Your task to perform on an android device: find which apps use the phone's location Image 0: 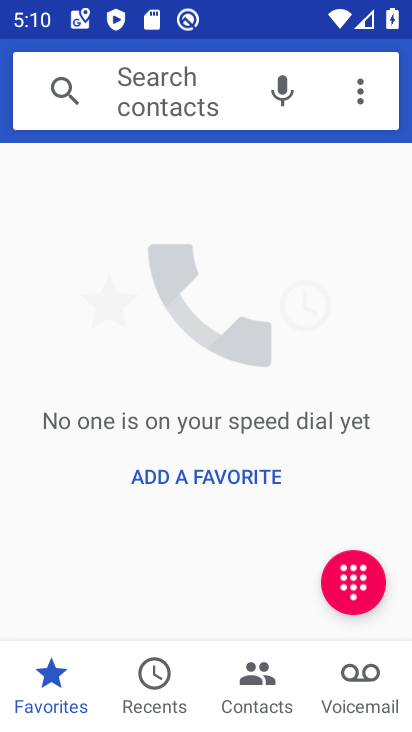
Step 0: press home button
Your task to perform on an android device: find which apps use the phone's location Image 1: 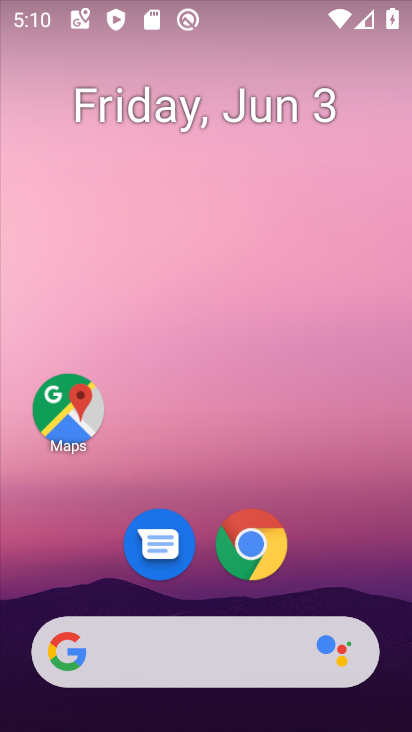
Step 1: drag from (352, 583) to (333, 88)
Your task to perform on an android device: find which apps use the phone's location Image 2: 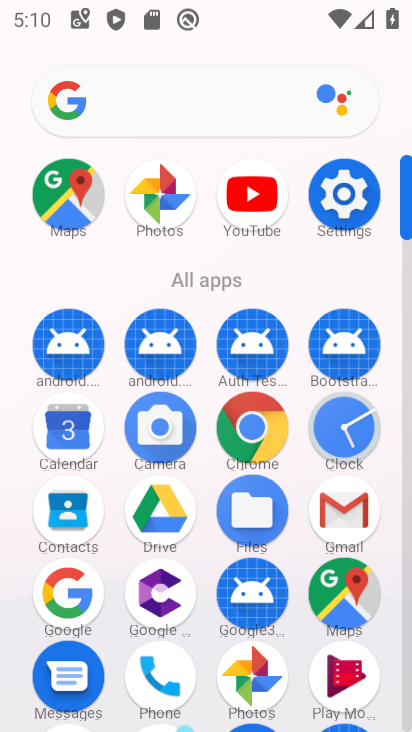
Step 2: drag from (299, 545) to (284, 130)
Your task to perform on an android device: find which apps use the phone's location Image 3: 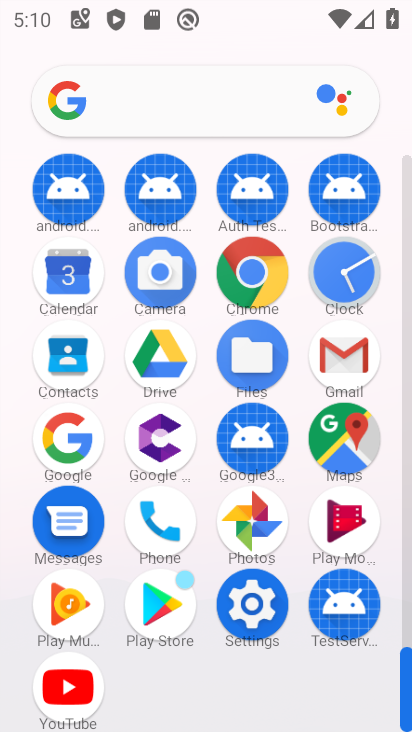
Step 3: click (167, 527)
Your task to perform on an android device: find which apps use the phone's location Image 4: 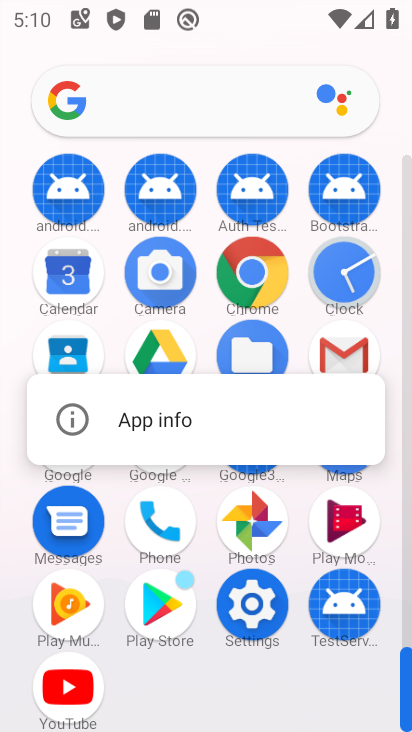
Step 4: click (193, 418)
Your task to perform on an android device: find which apps use the phone's location Image 5: 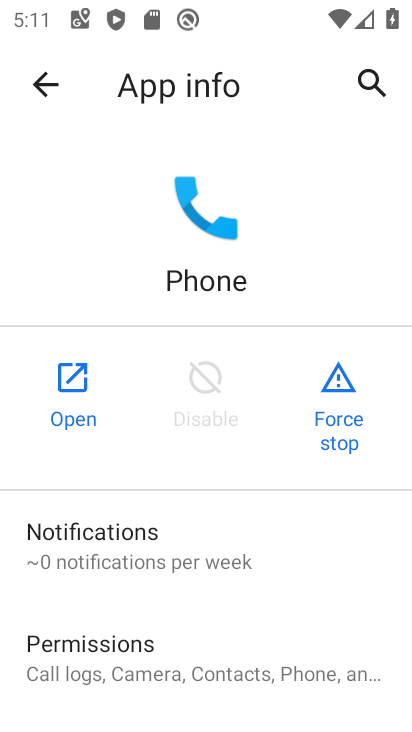
Step 5: press home button
Your task to perform on an android device: find which apps use the phone's location Image 6: 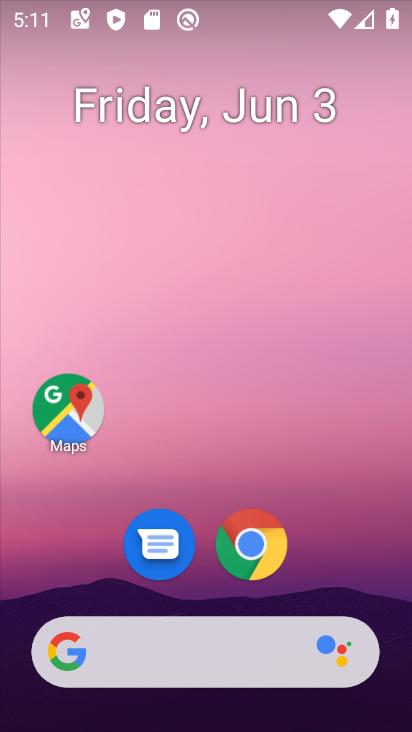
Step 6: drag from (356, 572) to (355, 84)
Your task to perform on an android device: find which apps use the phone's location Image 7: 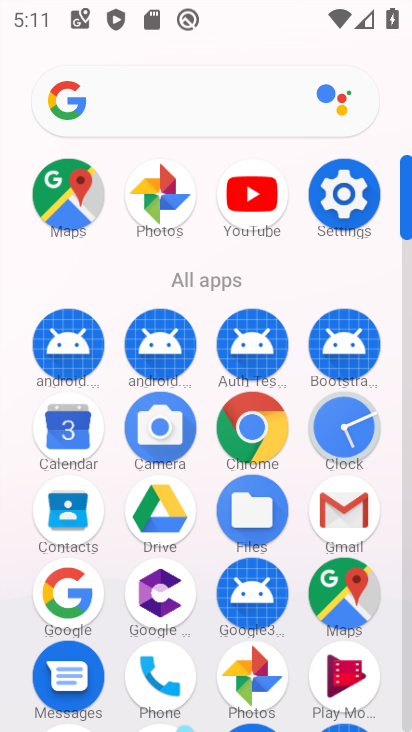
Step 7: click (150, 677)
Your task to perform on an android device: find which apps use the phone's location Image 8: 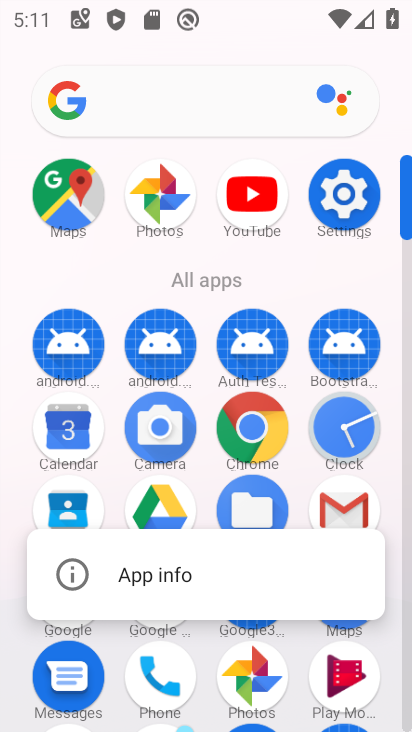
Step 8: click (167, 566)
Your task to perform on an android device: find which apps use the phone's location Image 9: 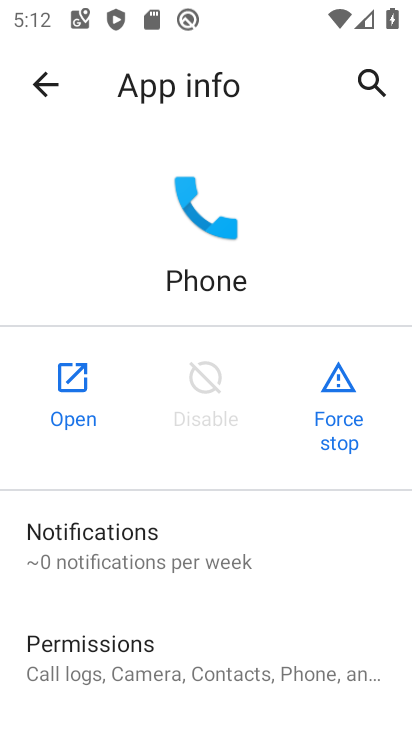
Step 9: drag from (184, 609) to (227, 437)
Your task to perform on an android device: find which apps use the phone's location Image 10: 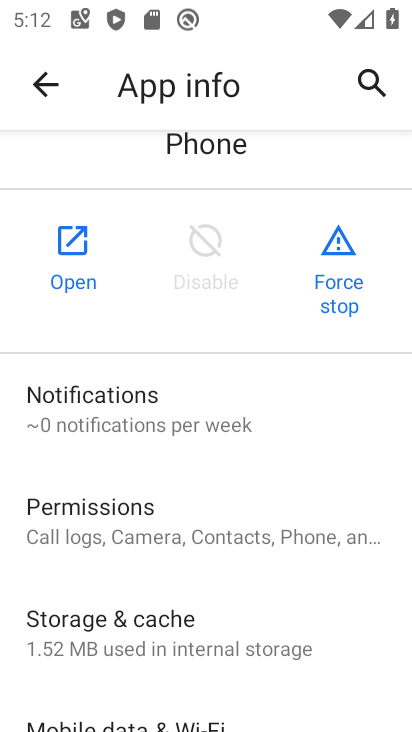
Step 10: click (87, 525)
Your task to perform on an android device: find which apps use the phone's location Image 11: 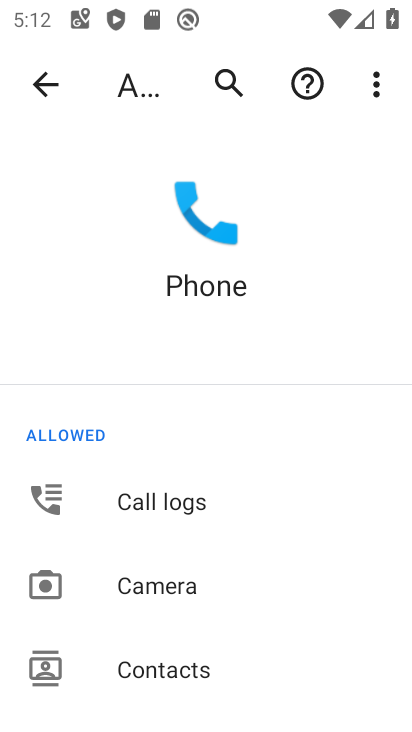
Step 11: drag from (259, 659) to (294, 217)
Your task to perform on an android device: find which apps use the phone's location Image 12: 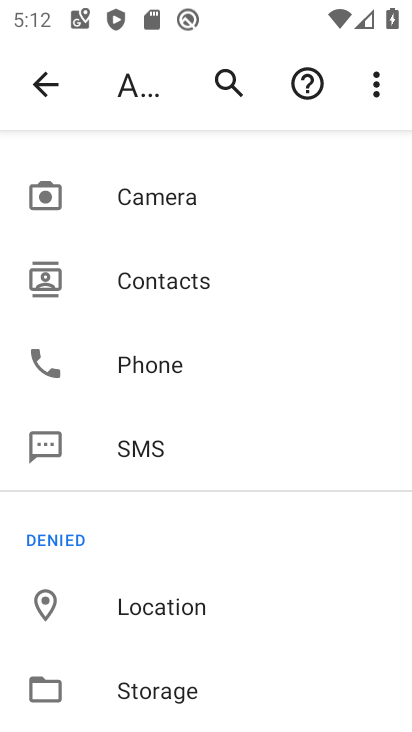
Step 12: click (156, 603)
Your task to perform on an android device: find which apps use the phone's location Image 13: 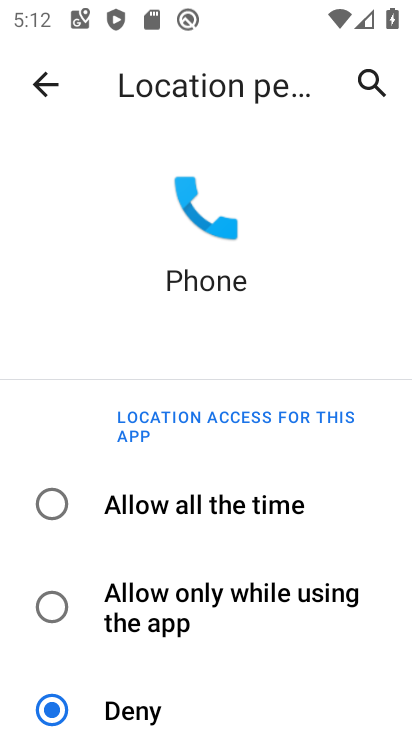
Step 13: task complete